Your task to perform on an android device: refresh tabs in the chrome app Image 0: 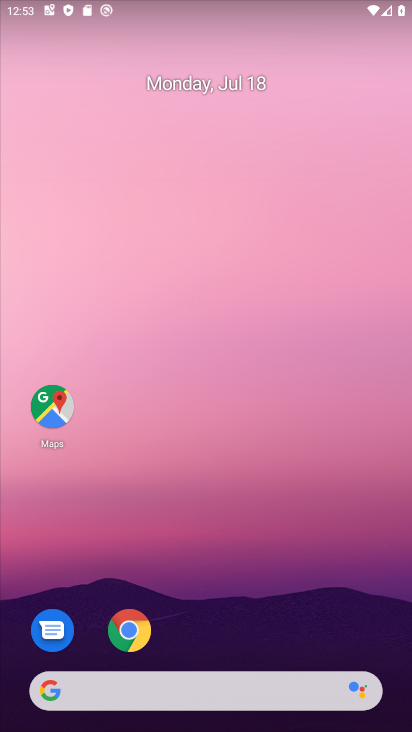
Step 0: click (131, 626)
Your task to perform on an android device: refresh tabs in the chrome app Image 1: 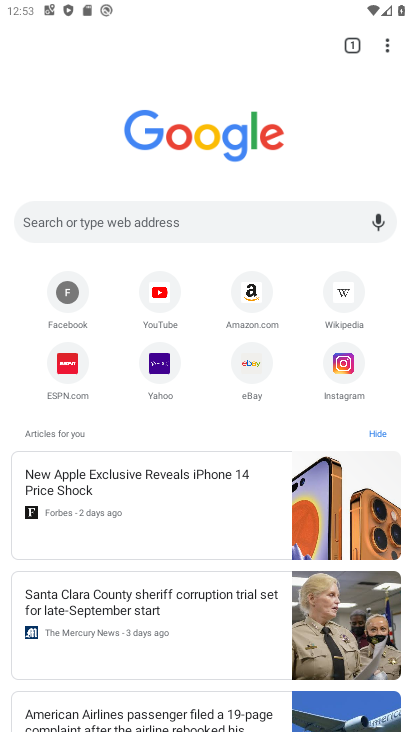
Step 1: click (389, 41)
Your task to perform on an android device: refresh tabs in the chrome app Image 2: 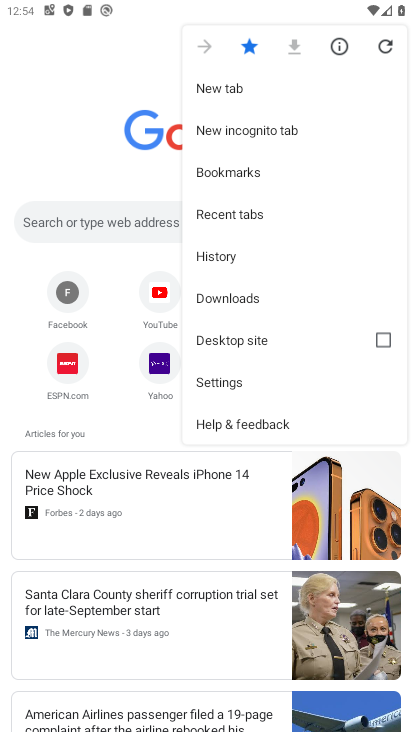
Step 2: click (386, 43)
Your task to perform on an android device: refresh tabs in the chrome app Image 3: 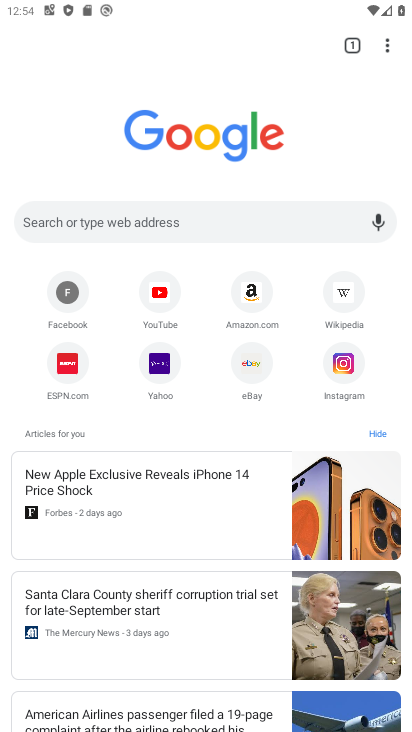
Step 3: task complete